Your task to perform on an android device: turn off javascript in the chrome app Image 0: 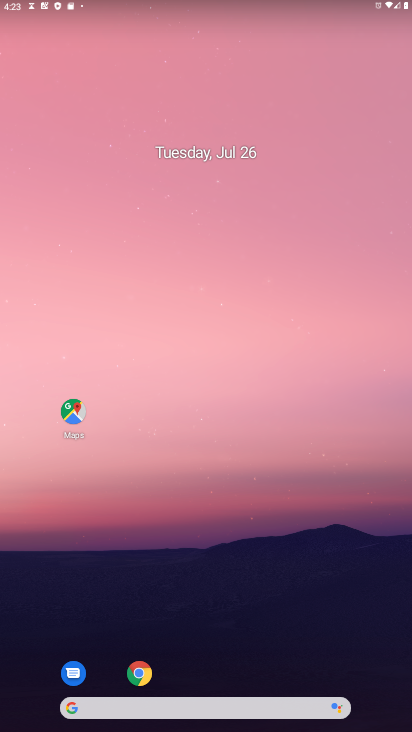
Step 0: click (140, 672)
Your task to perform on an android device: turn off javascript in the chrome app Image 1: 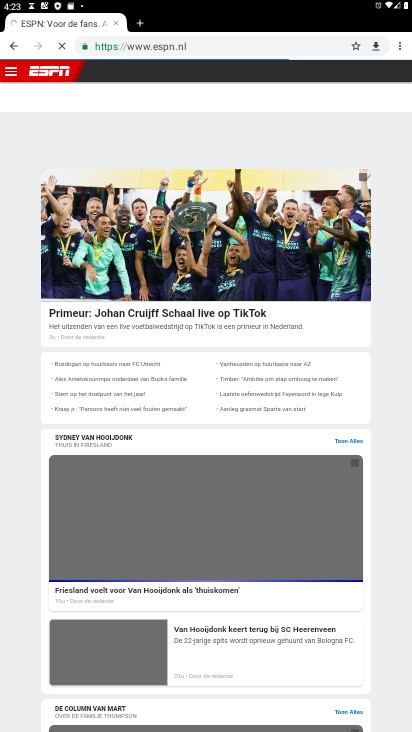
Step 1: click (401, 46)
Your task to perform on an android device: turn off javascript in the chrome app Image 2: 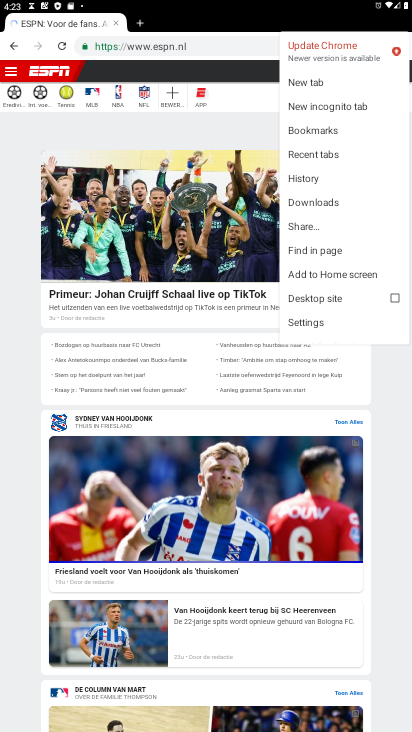
Step 2: click (310, 320)
Your task to perform on an android device: turn off javascript in the chrome app Image 3: 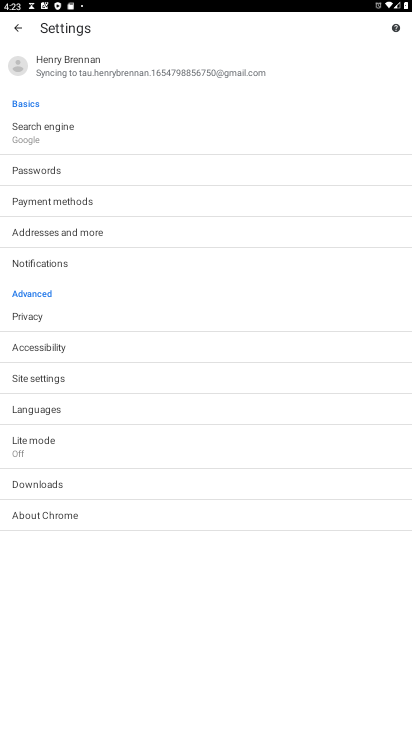
Step 3: click (39, 379)
Your task to perform on an android device: turn off javascript in the chrome app Image 4: 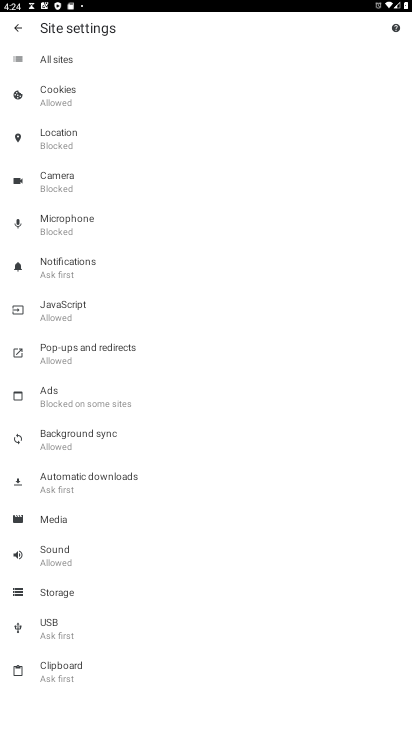
Step 4: click (74, 311)
Your task to perform on an android device: turn off javascript in the chrome app Image 5: 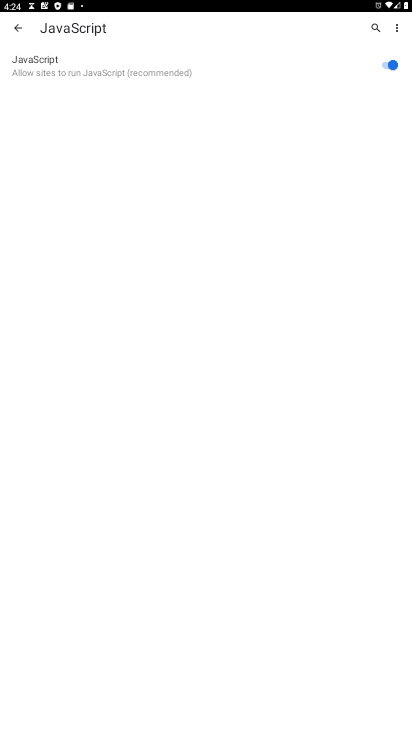
Step 5: click (389, 65)
Your task to perform on an android device: turn off javascript in the chrome app Image 6: 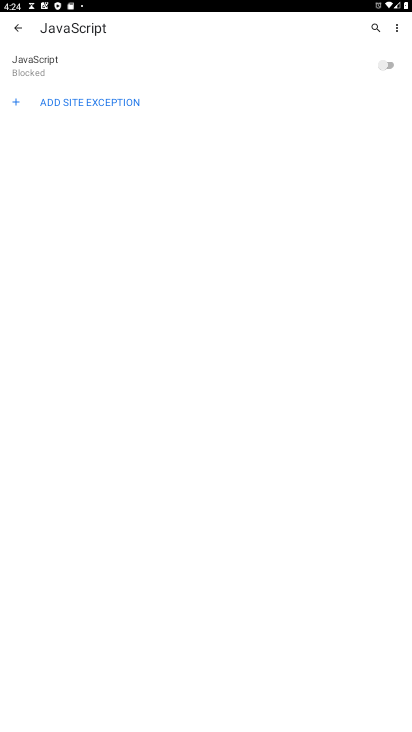
Step 6: task complete